Your task to perform on an android device: check android version Image 0: 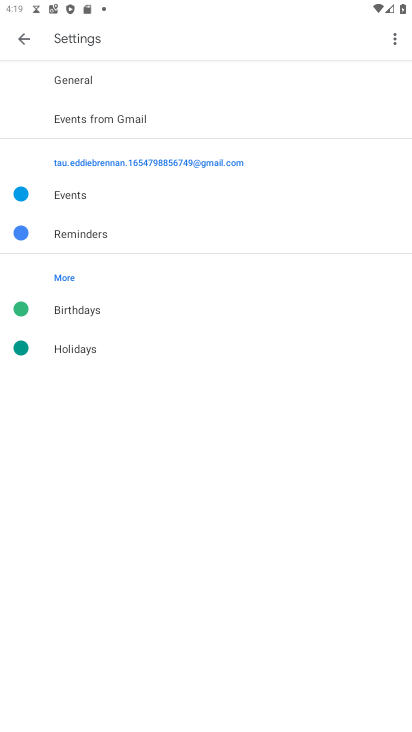
Step 0: press home button
Your task to perform on an android device: check android version Image 1: 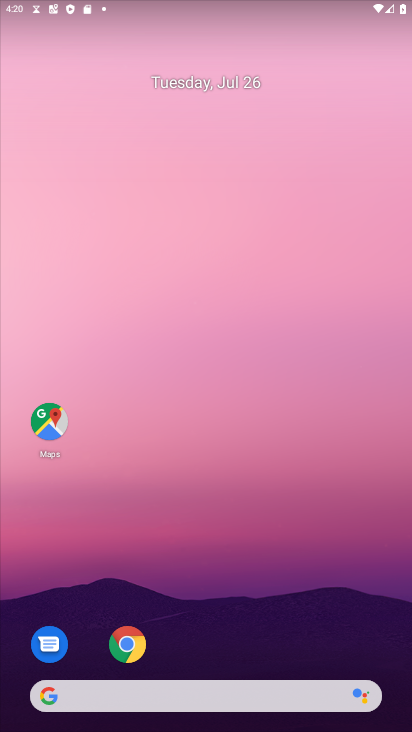
Step 1: drag from (218, 647) to (159, 256)
Your task to perform on an android device: check android version Image 2: 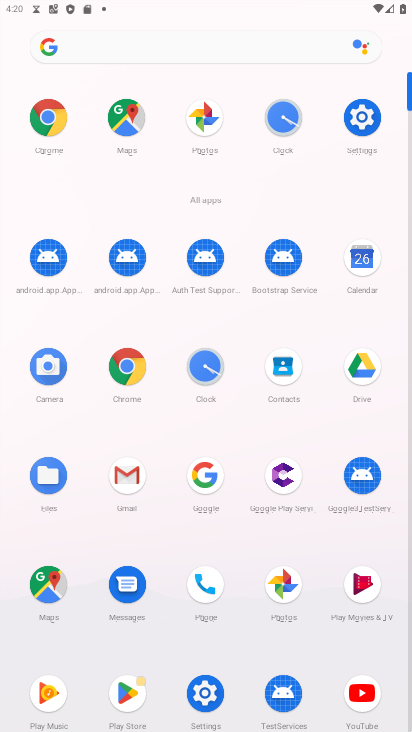
Step 2: click (366, 120)
Your task to perform on an android device: check android version Image 3: 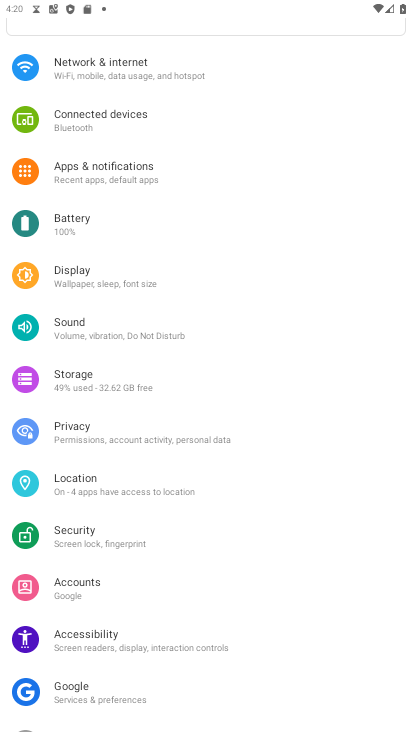
Step 3: drag from (231, 667) to (163, 114)
Your task to perform on an android device: check android version Image 4: 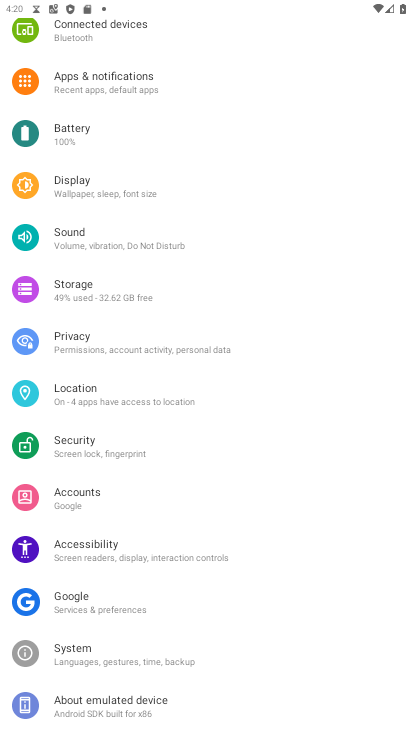
Step 4: click (237, 716)
Your task to perform on an android device: check android version Image 5: 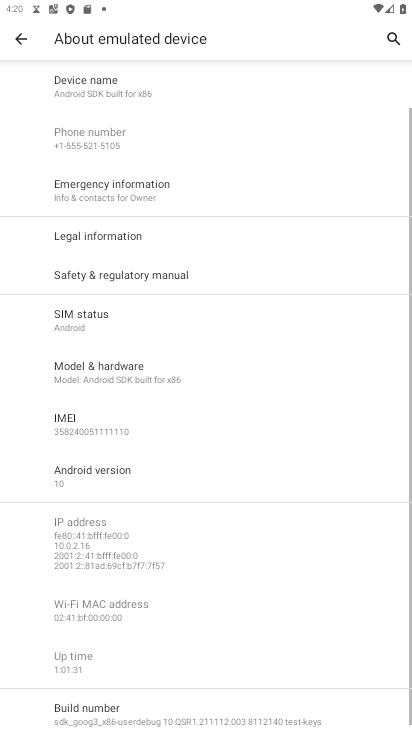
Step 5: click (146, 474)
Your task to perform on an android device: check android version Image 6: 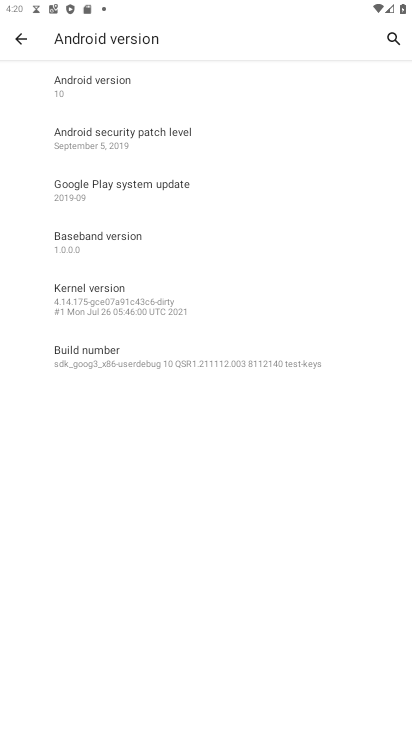
Step 6: task complete